Your task to perform on an android device: find snoozed emails in the gmail app Image 0: 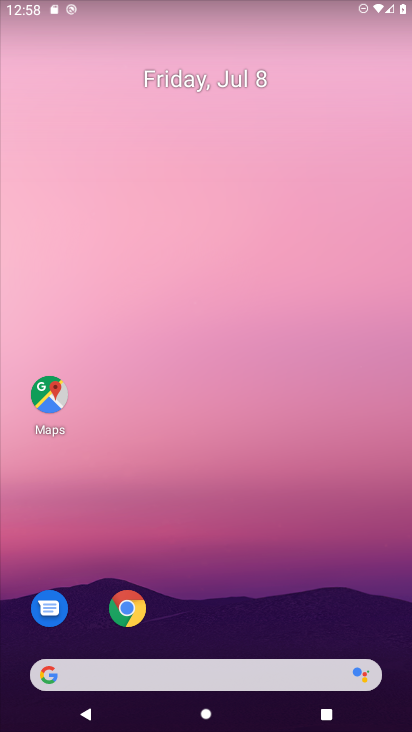
Step 0: drag from (273, 615) to (292, 60)
Your task to perform on an android device: find snoozed emails in the gmail app Image 1: 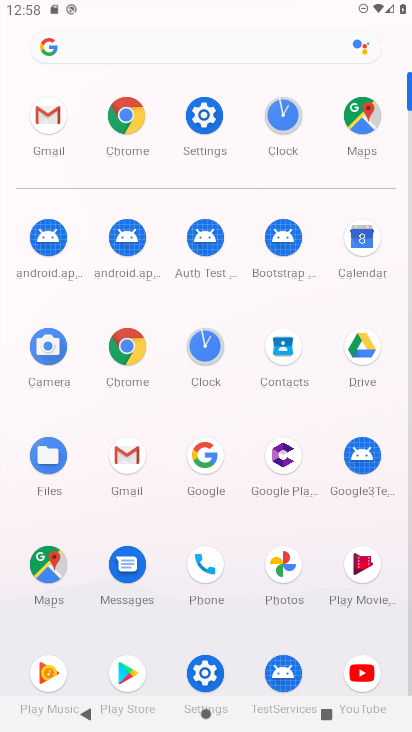
Step 1: click (49, 129)
Your task to perform on an android device: find snoozed emails in the gmail app Image 2: 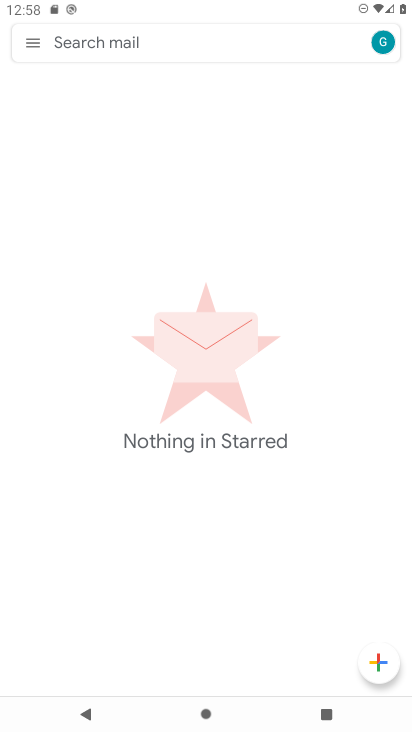
Step 2: click (29, 34)
Your task to perform on an android device: find snoozed emails in the gmail app Image 3: 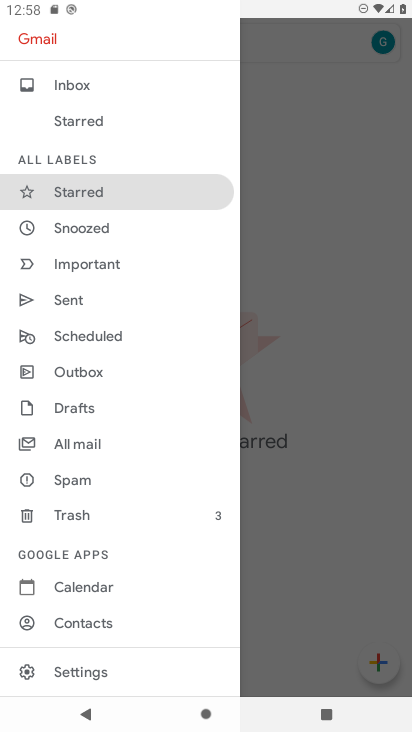
Step 3: click (102, 233)
Your task to perform on an android device: find snoozed emails in the gmail app Image 4: 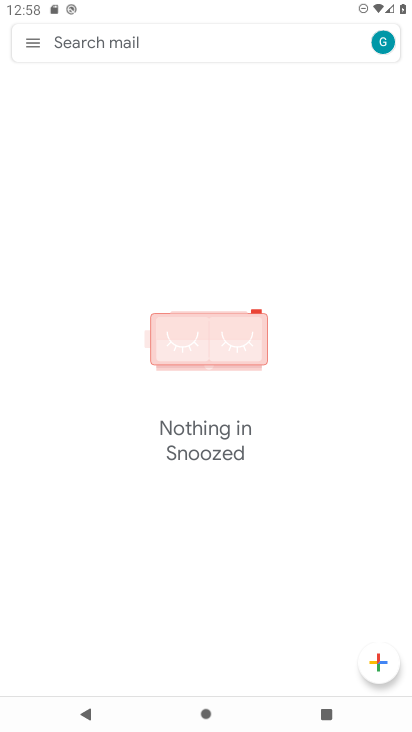
Step 4: task complete